Your task to perform on an android device: turn pop-ups off in chrome Image 0: 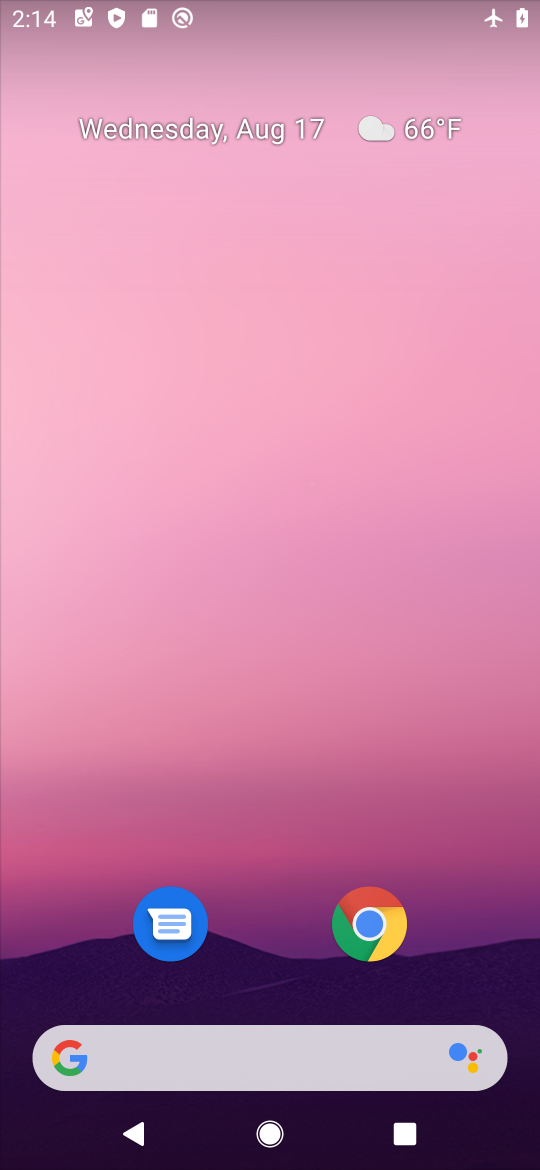
Step 0: click (370, 929)
Your task to perform on an android device: turn pop-ups off in chrome Image 1: 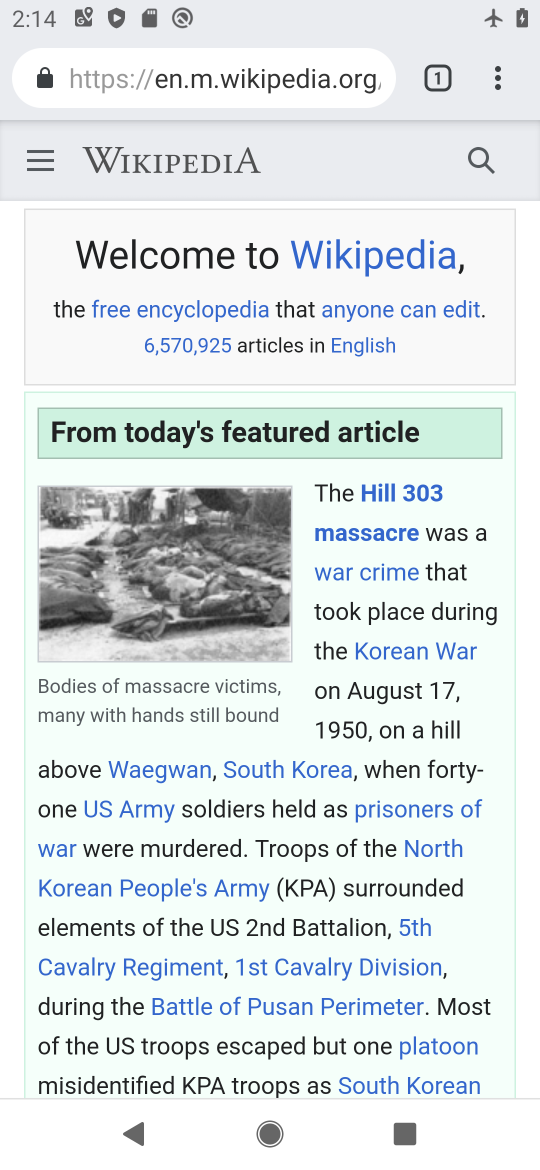
Step 1: click (506, 82)
Your task to perform on an android device: turn pop-ups off in chrome Image 2: 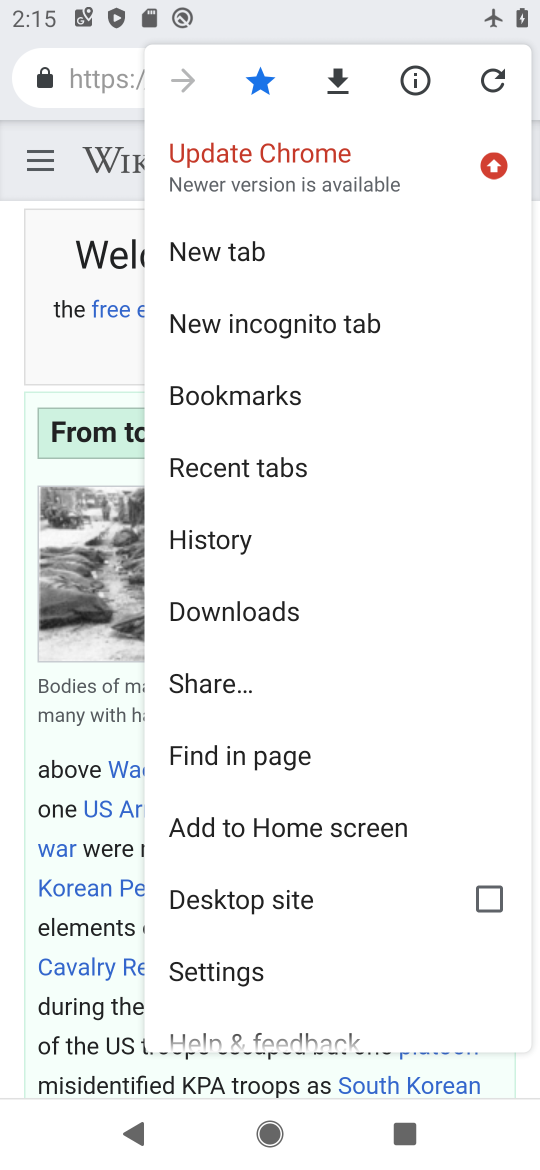
Step 2: click (221, 975)
Your task to perform on an android device: turn pop-ups off in chrome Image 3: 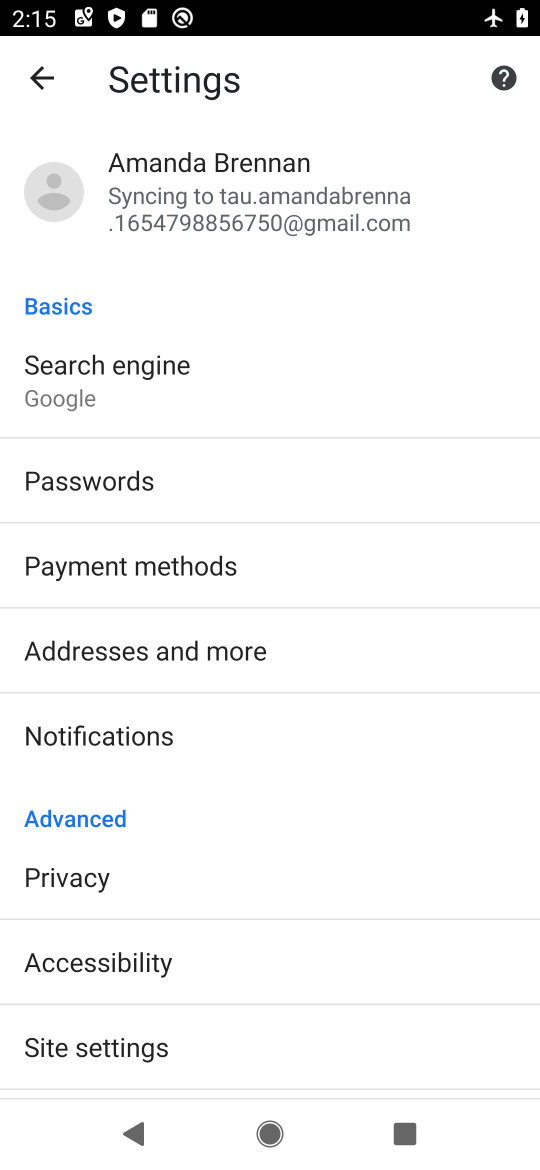
Step 3: drag from (159, 702) to (208, 569)
Your task to perform on an android device: turn pop-ups off in chrome Image 4: 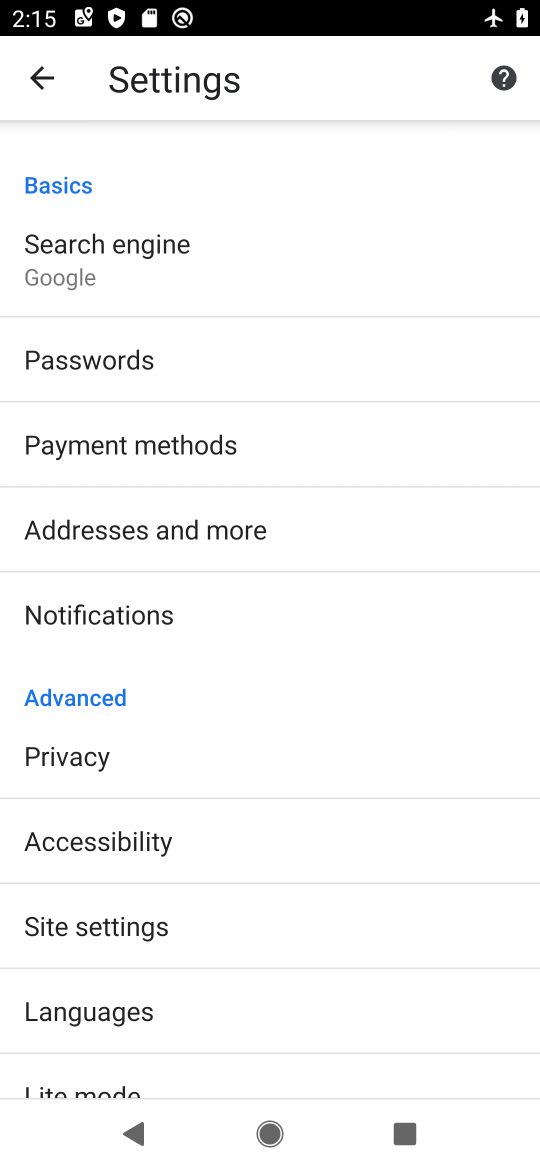
Step 4: click (108, 925)
Your task to perform on an android device: turn pop-ups off in chrome Image 5: 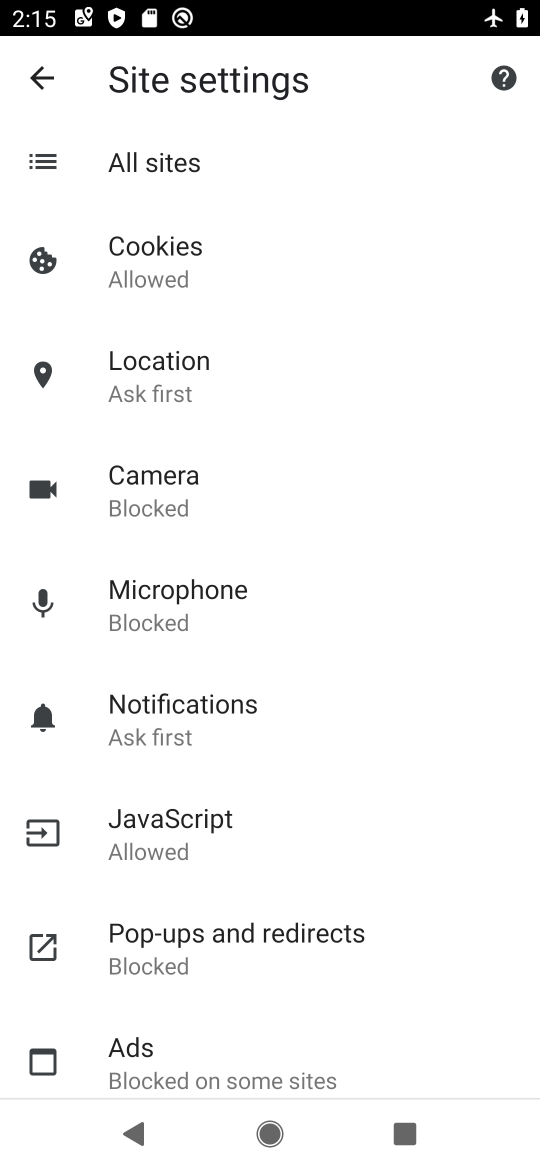
Step 5: click (180, 940)
Your task to perform on an android device: turn pop-ups off in chrome Image 6: 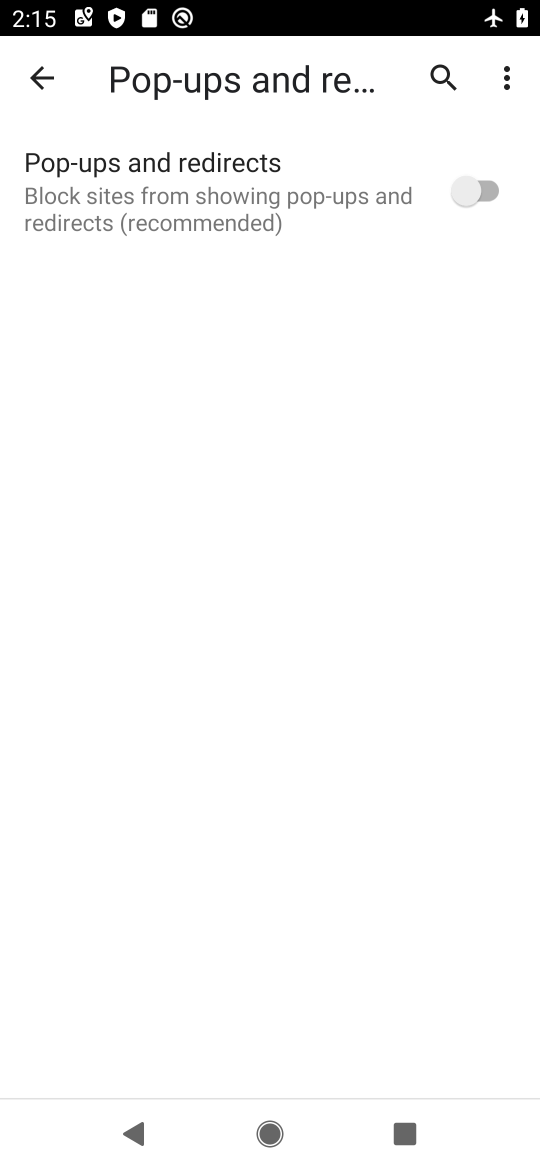
Step 6: task complete